Your task to perform on an android device: visit the assistant section in the google photos Image 0: 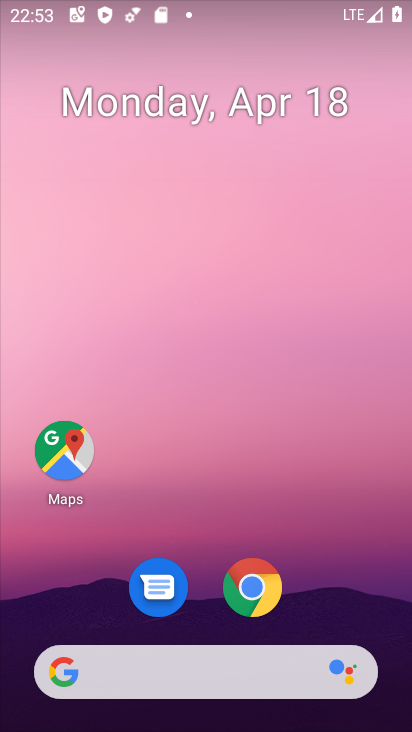
Step 0: drag from (374, 576) to (332, 68)
Your task to perform on an android device: visit the assistant section in the google photos Image 1: 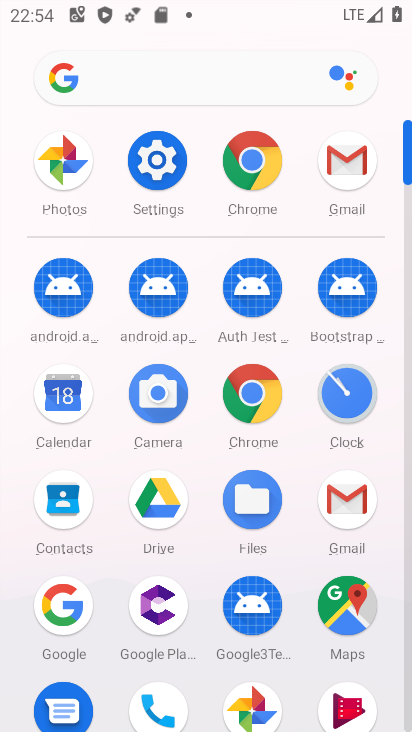
Step 1: drag from (214, 569) to (178, 260)
Your task to perform on an android device: visit the assistant section in the google photos Image 2: 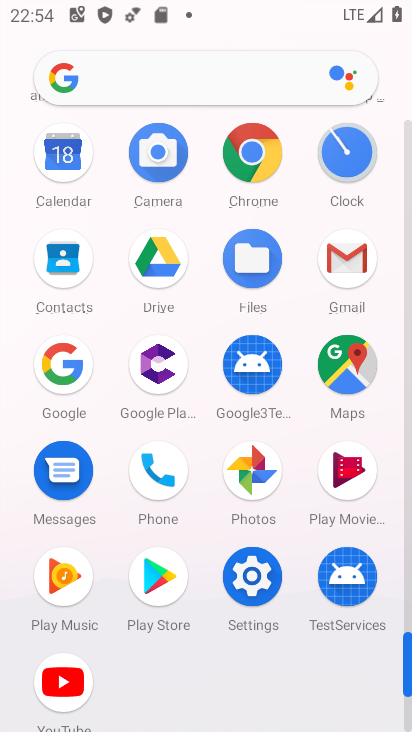
Step 2: click (243, 470)
Your task to perform on an android device: visit the assistant section in the google photos Image 3: 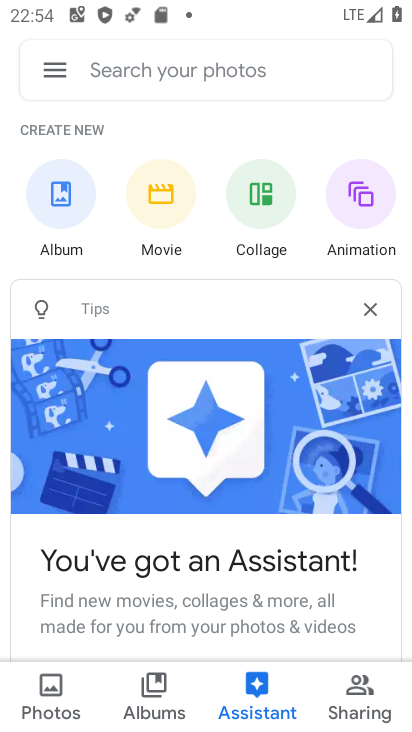
Step 3: task complete